Your task to perform on an android device: Search for seafood restaurants on Google Maps Image 0: 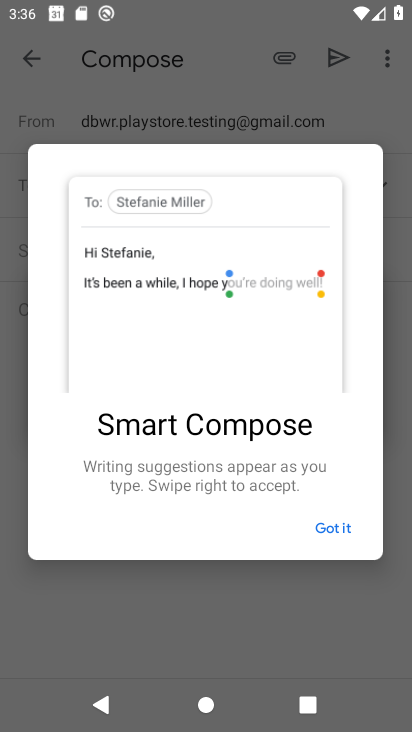
Step 0: press home button
Your task to perform on an android device: Search for seafood restaurants on Google Maps Image 1: 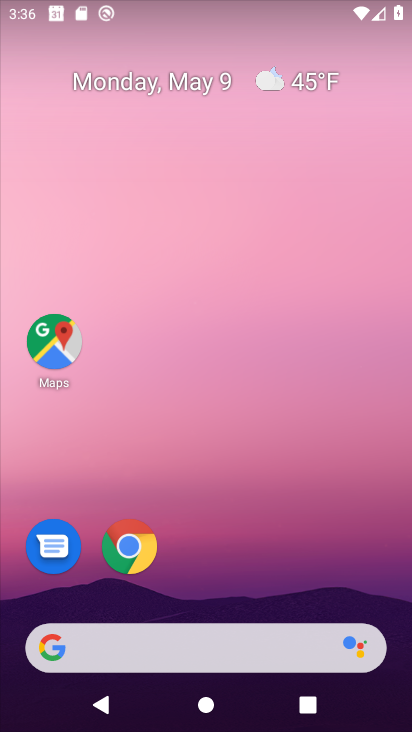
Step 1: click (52, 346)
Your task to perform on an android device: Search for seafood restaurants on Google Maps Image 2: 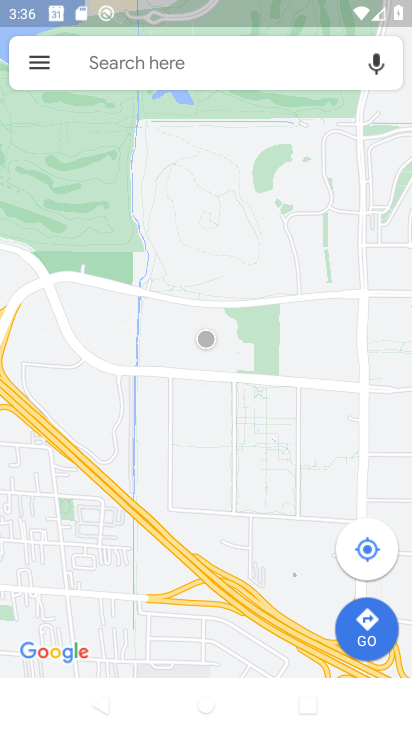
Step 2: click (143, 88)
Your task to perform on an android device: Search for seafood restaurants on Google Maps Image 3: 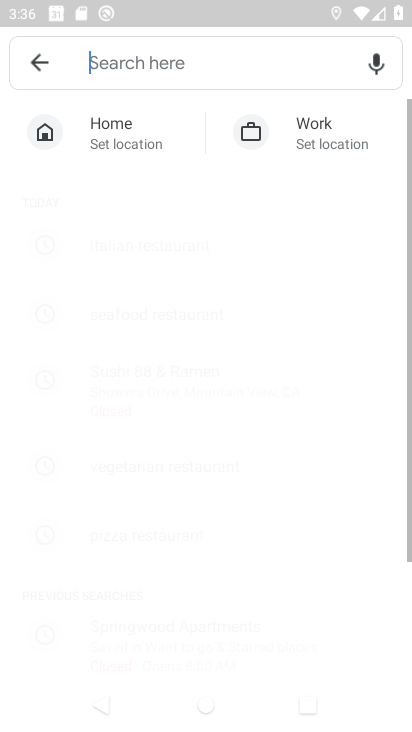
Step 3: click (149, 69)
Your task to perform on an android device: Search for seafood restaurants on Google Maps Image 4: 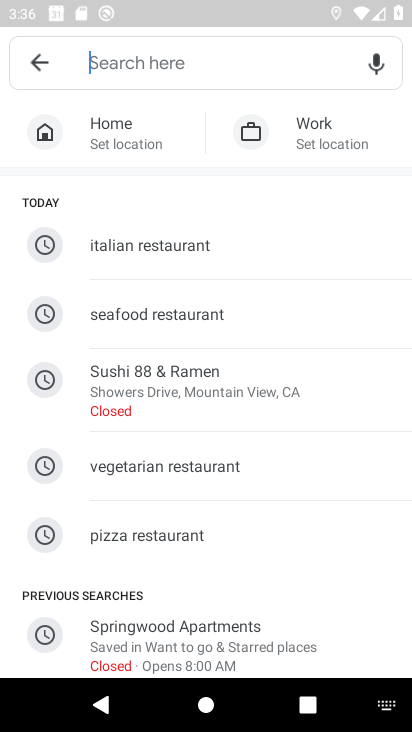
Step 4: type "seafood restaurants"
Your task to perform on an android device: Search for seafood restaurants on Google Maps Image 5: 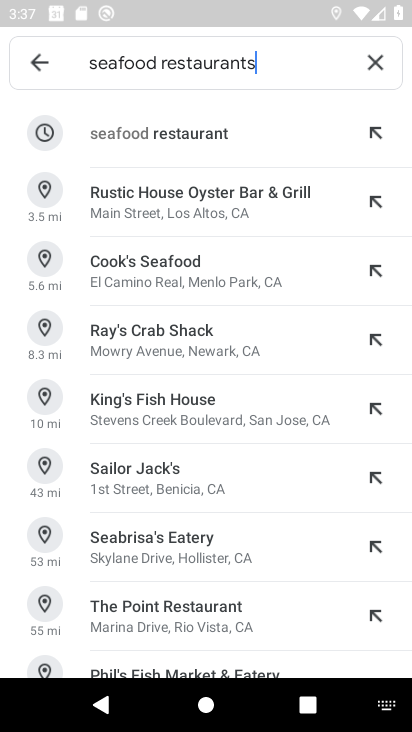
Step 5: click (212, 134)
Your task to perform on an android device: Search for seafood restaurants on Google Maps Image 6: 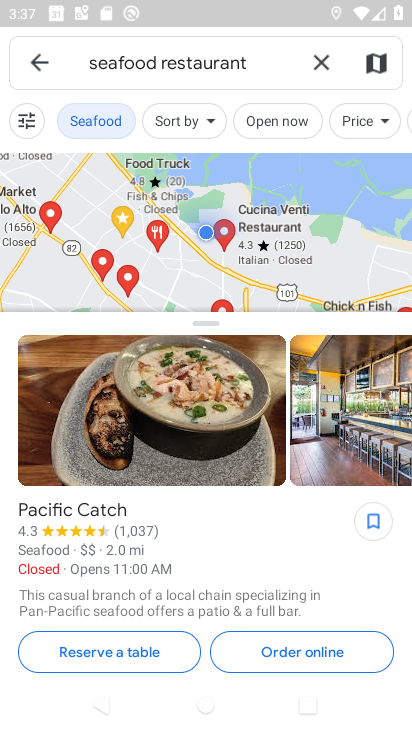
Step 6: task complete